Your task to perform on an android device: open app "McDonald's" (install if not already installed) Image 0: 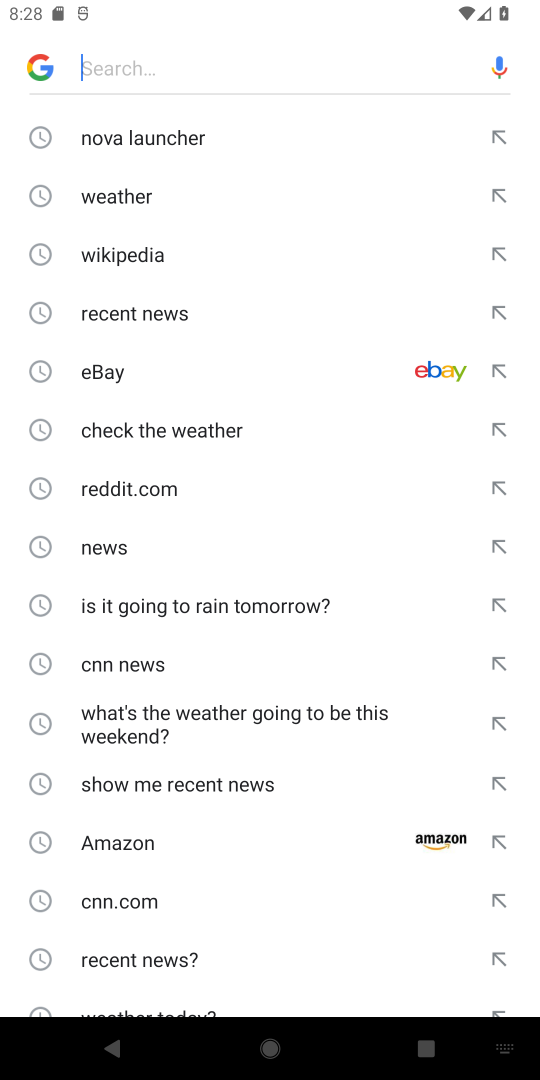
Step 0: press home button
Your task to perform on an android device: open app "McDonald's" (install if not already installed) Image 1: 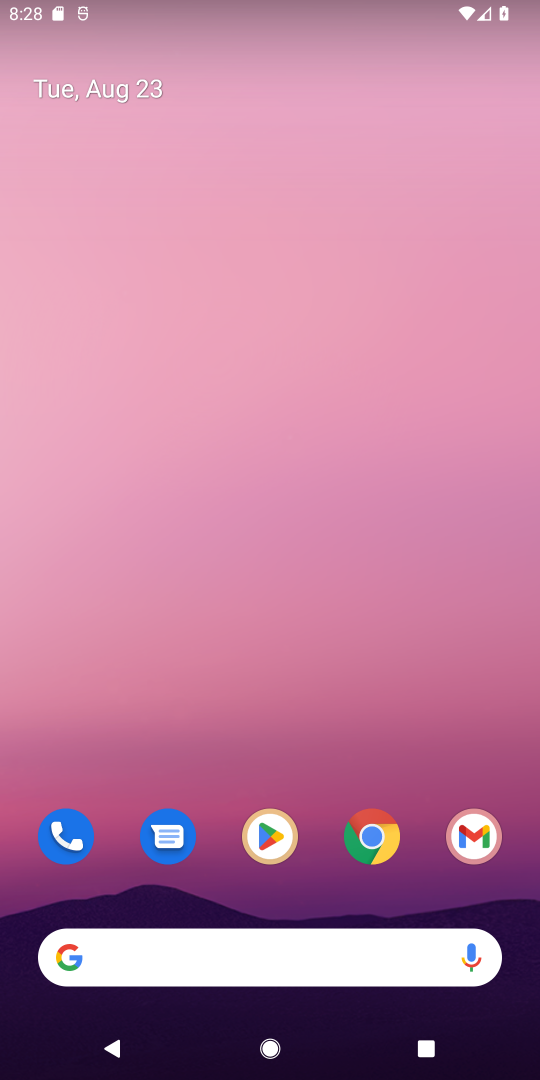
Step 1: click (275, 832)
Your task to perform on an android device: open app "McDonald's" (install if not already installed) Image 2: 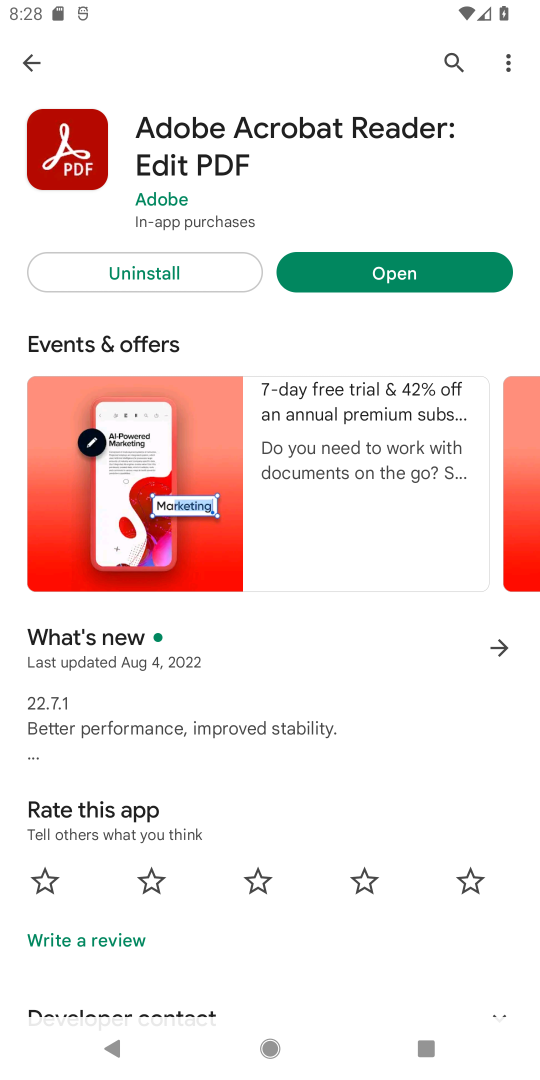
Step 2: click (452, 59)
Your task to perform on an android device: open app "McDonald's" (install if not already installed) Image 3: 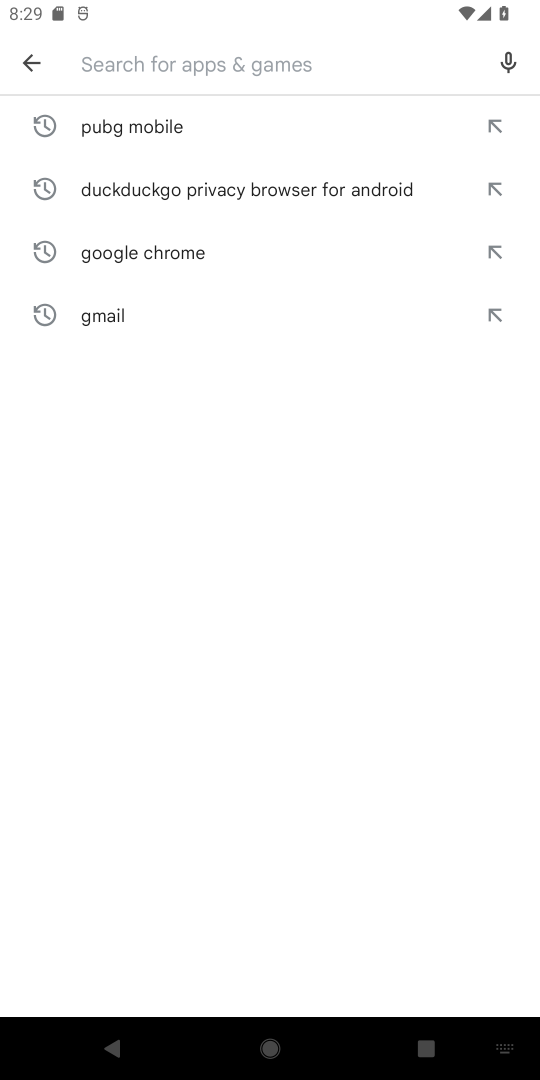
Step 3: type "McDonald's"
Your task to perform on an android device: open app "McDonald's" (install if not already installed) Image 4: 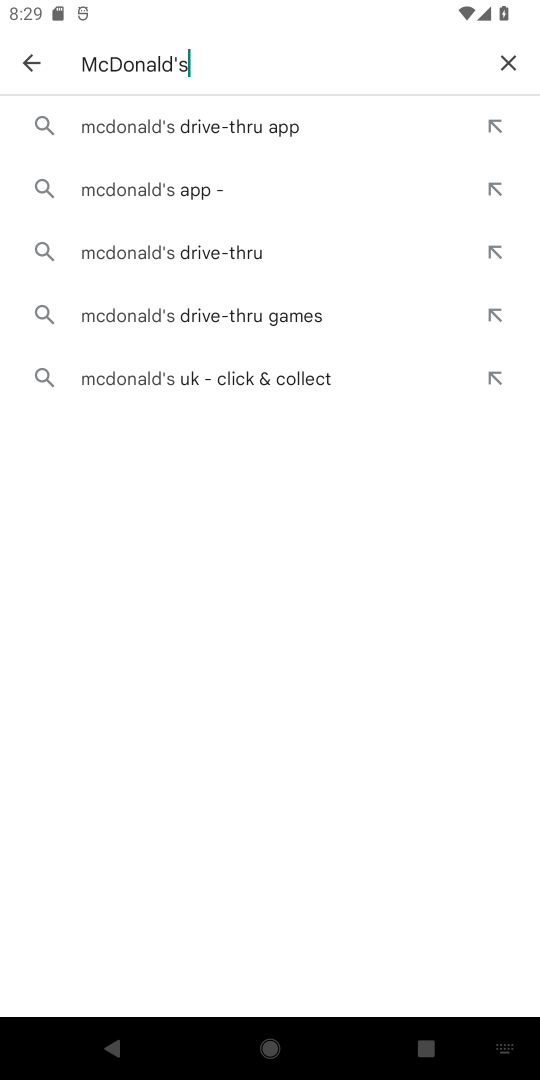
Step 4: click (170, 125)
Your task to perform on an android device: open app "McDonald's" (install if not already installed) Image 5: 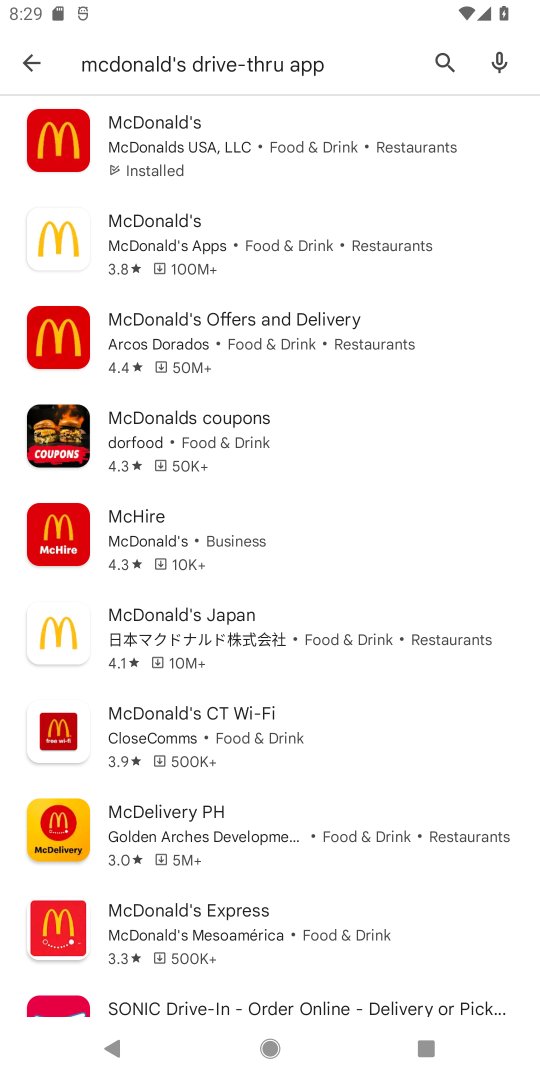
Step 5: click (185, 162)
Your task to perform on an android device: open app "McDonald's" (install if not already installed) Image 6: 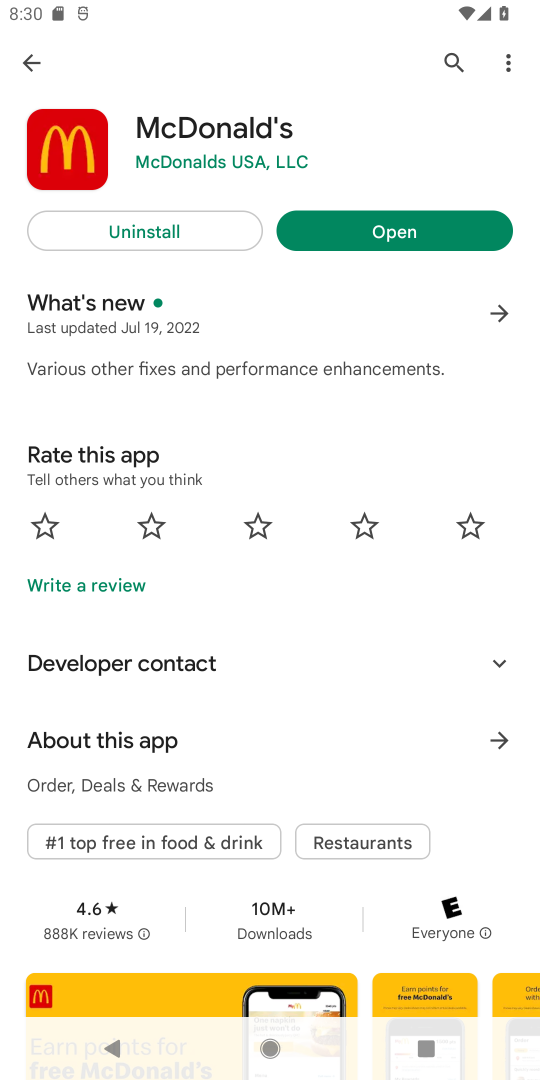
Step 6: click (405, 237)
Your task to perform on an android device: open app "McDonald's" (install if not already installed) Image 7: 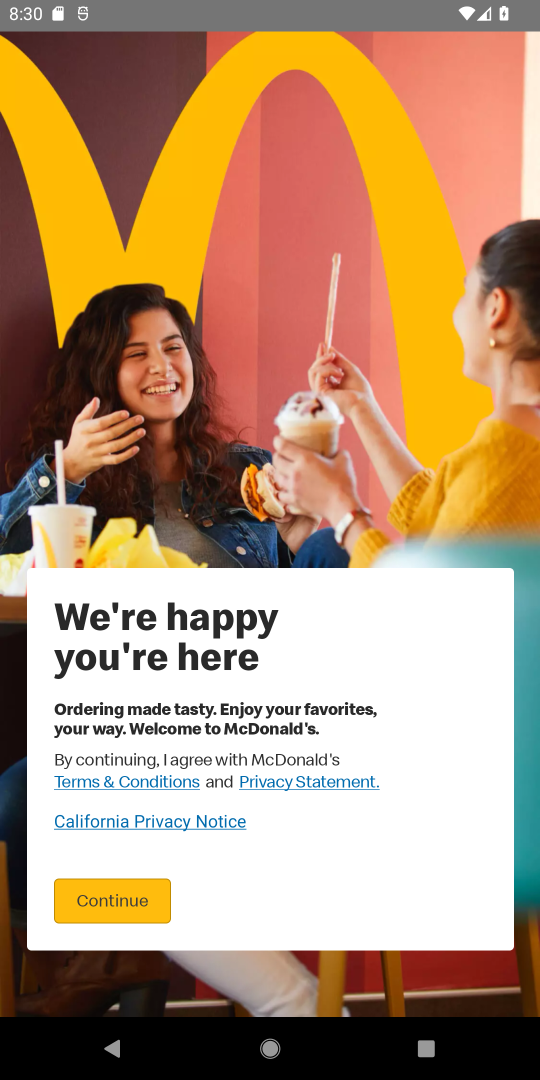
Step 7: task complete